Your task to perform on an android device: turn off picture-in-picture Image 0: 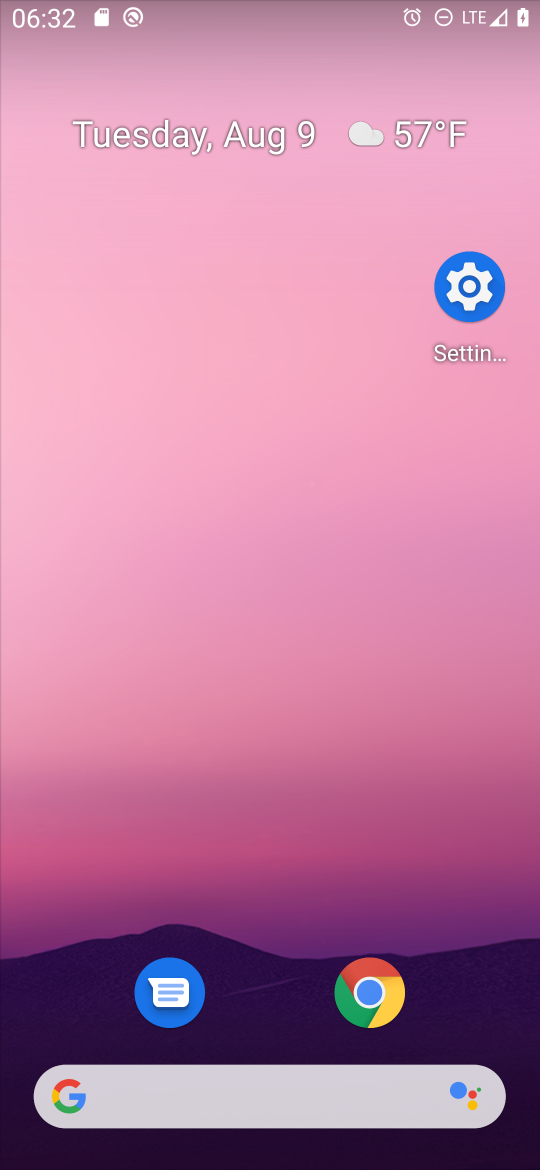
Step 0: drag from (311, 1064) to (236, 111)
Your task to perform on an android device: turn off picture-in-picture Image 1: 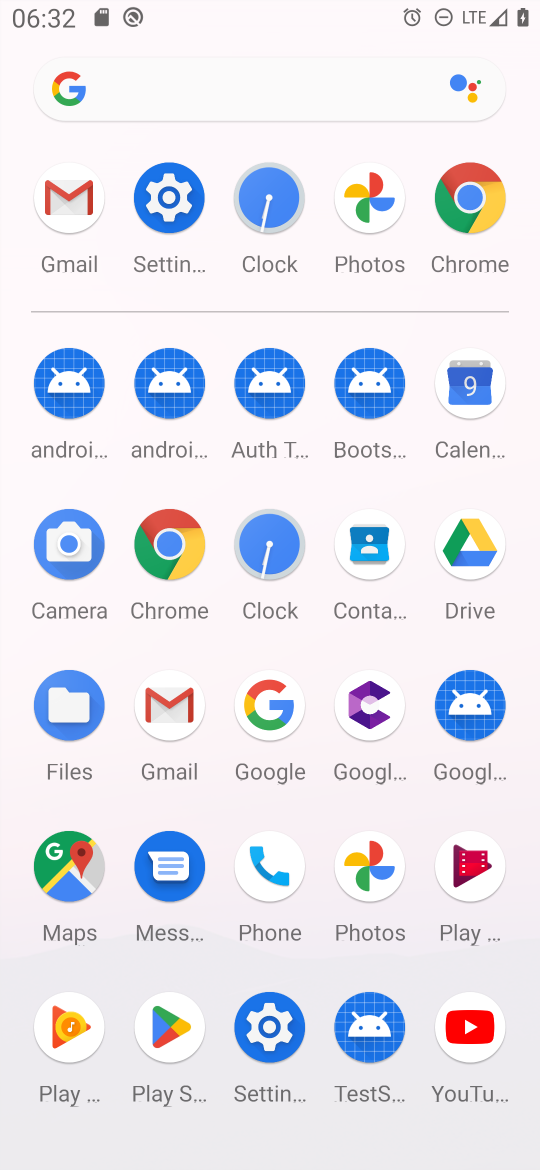
Step 1: click (166, 283)
Your task to perform on an android device: turn off picture-in-picture Image 2: 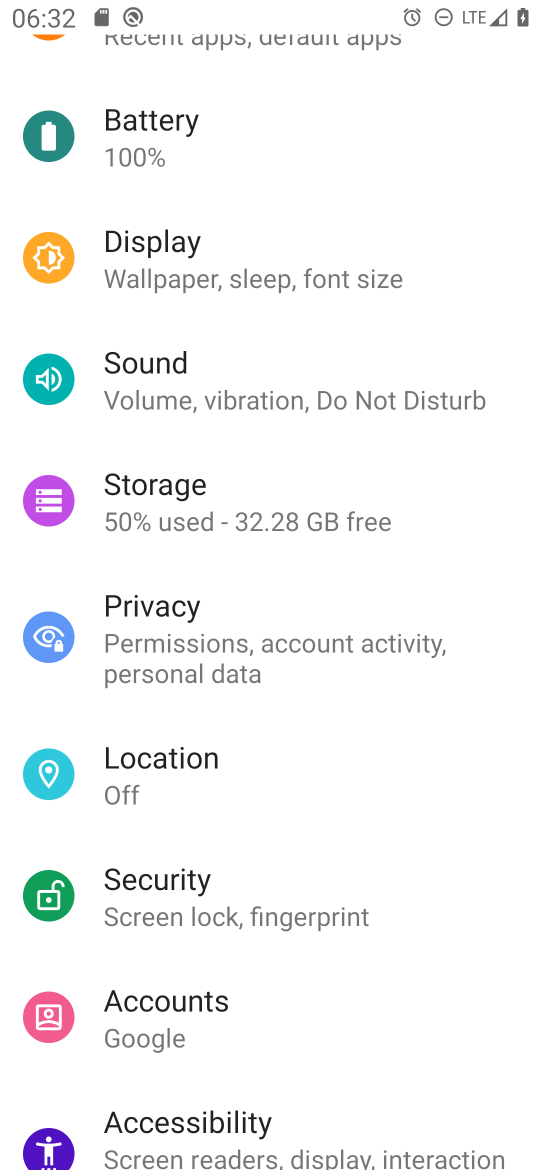
Step 2: drag from (353, 204) to (339, 633)
Your task to perform on an android device: turn off picture-in-picture Image 3: 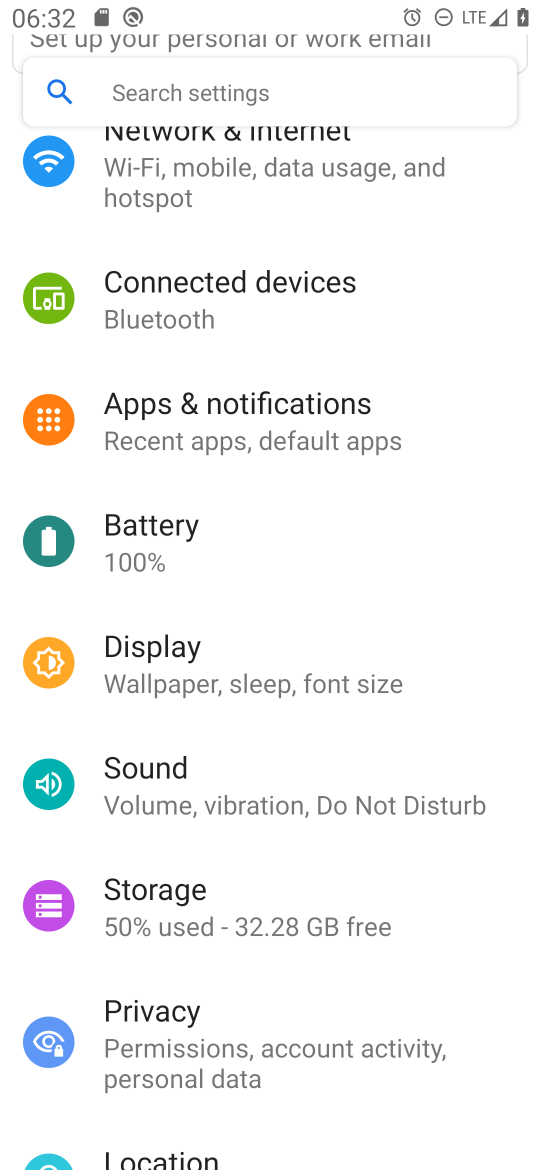
Step 3: click (285, 415)
Your task to perform on an android device: turn off picture-in-picture Image 4: 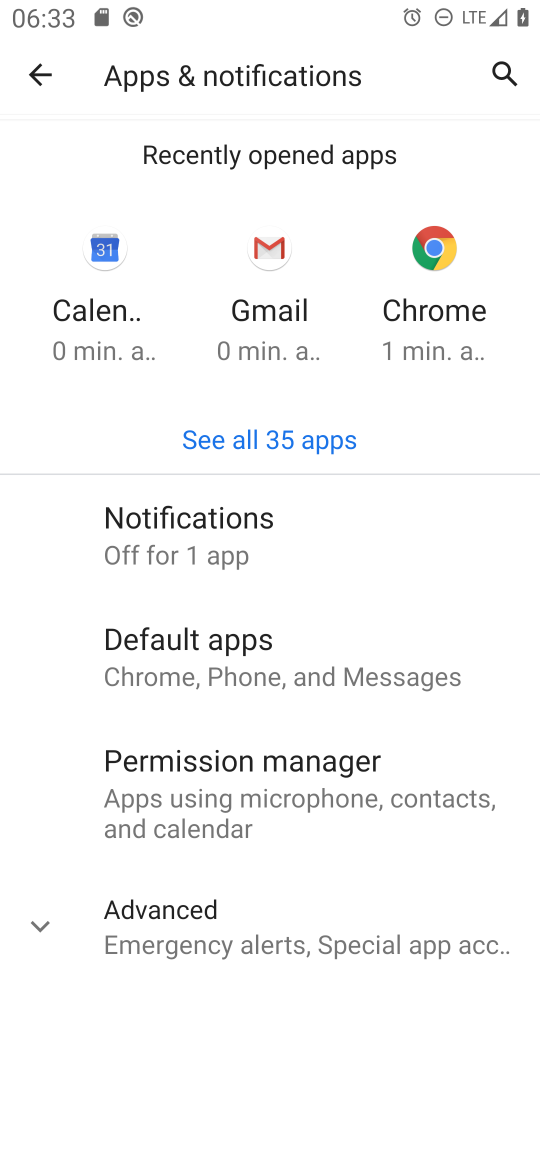
Step 4: click (272, 948)
Your task to perform on an android device: turn off picture-in-picture Image 5: 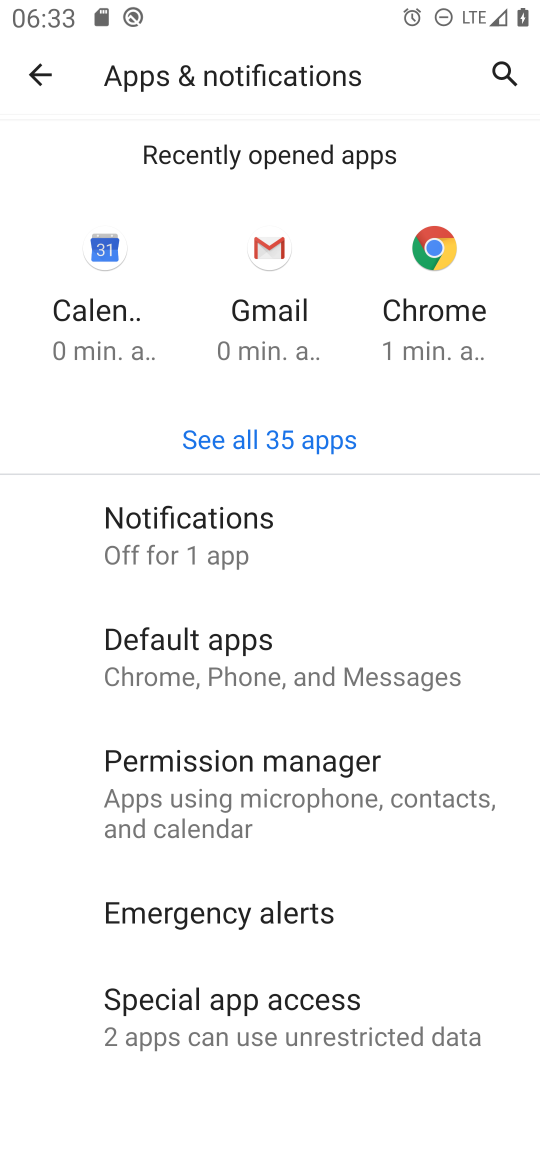
Step 5: click (283, 1010)
Your task to perform on an android device: turn off picture-in-picture Image 6: 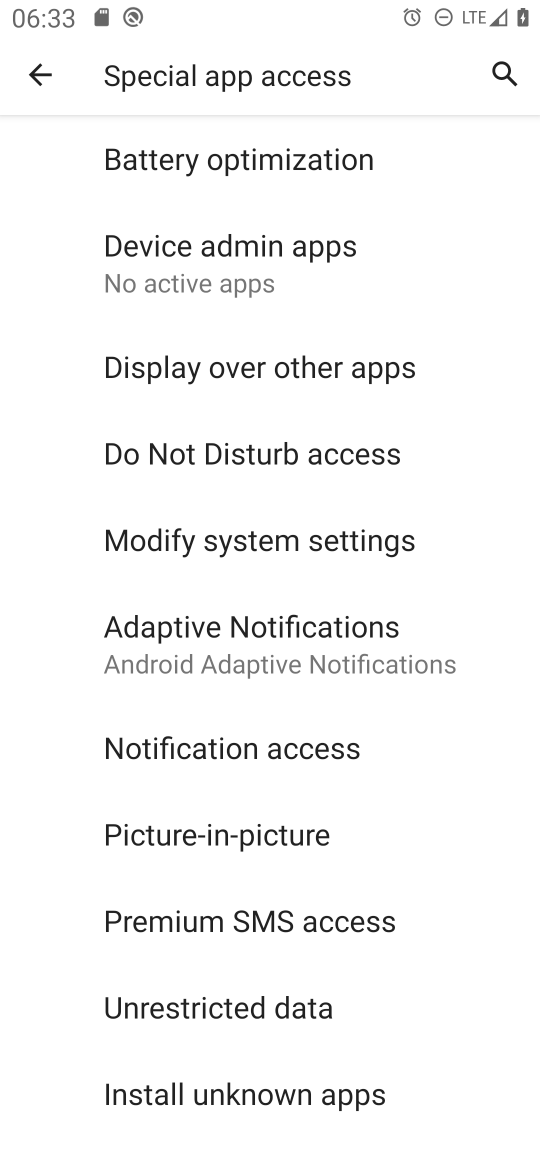
Step 6: click (242, 842)
Your task to perform on an android device: turn off picture-in-picture Image 7: 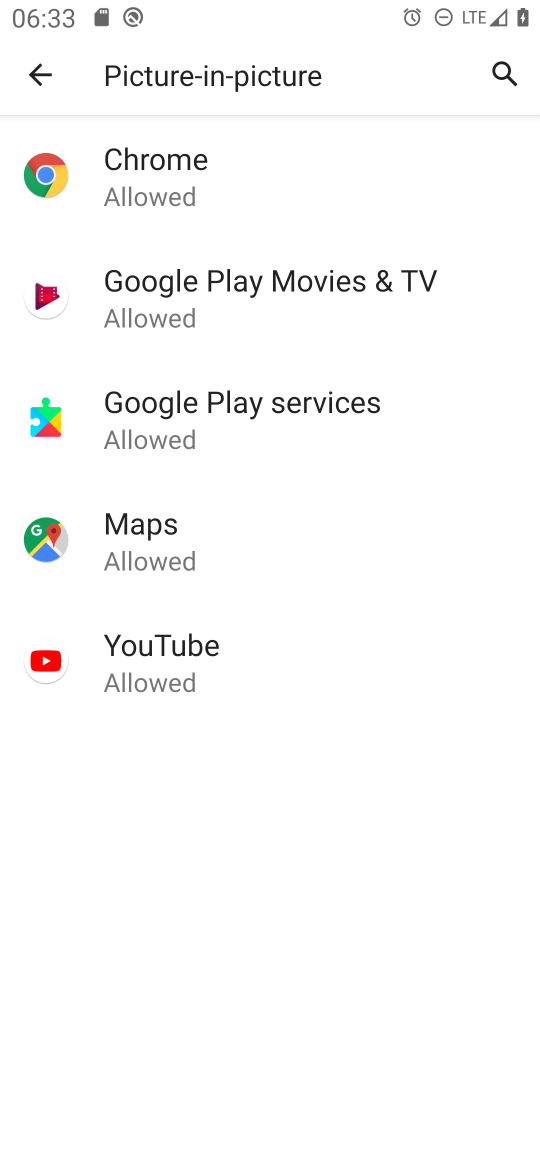
Step 7: click (193, 181)
Your task to perform on an android device: turn off picture-in-picture Image 8: 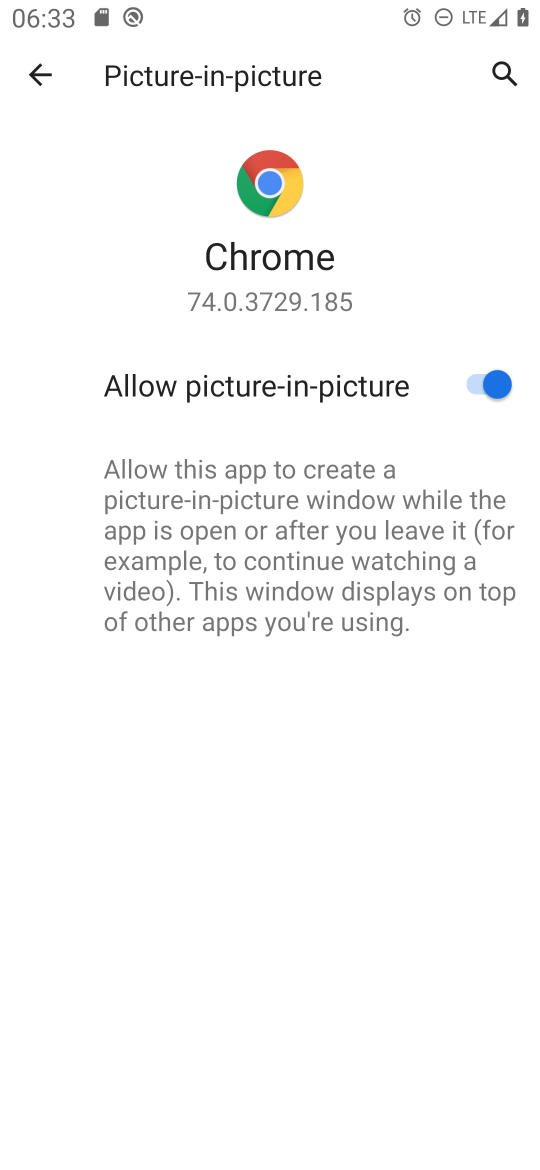
Step 8: click (485, 393)
Your task to perform on an android device: turn off picture-in-picture Image 9: 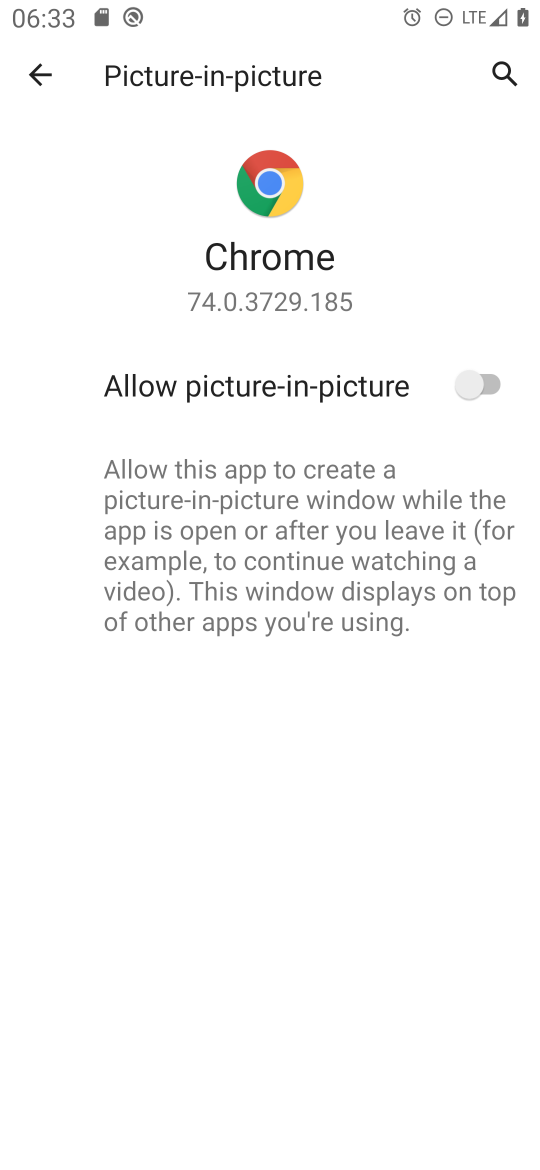
Step 9: press back button
Your task to perform on an android device: turn off picture-in-picture Image 10: 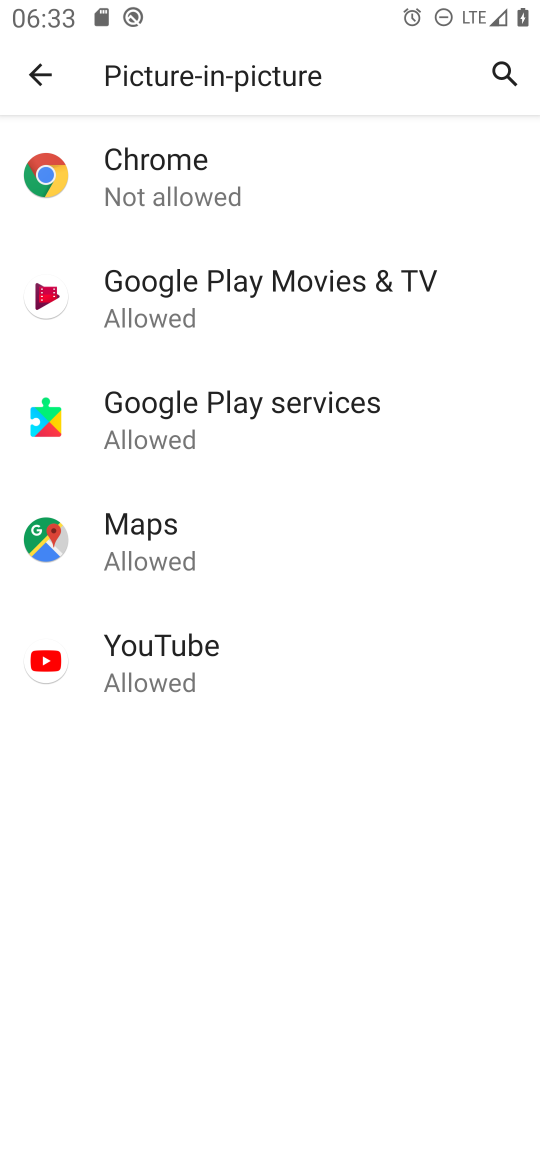
Step 10: click (384, 291)
Your task to perform on an android device: turn off picture-in-picture Image 11: 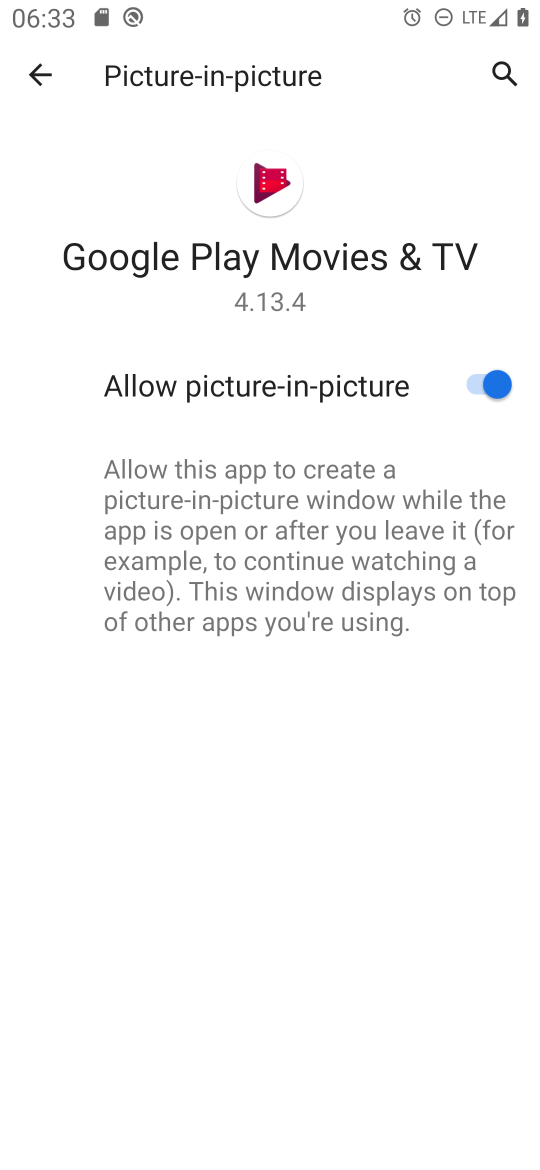
Step 11: click (477, 380)
Your task to perform on an android device: turn off picture-in-picture Image 12: 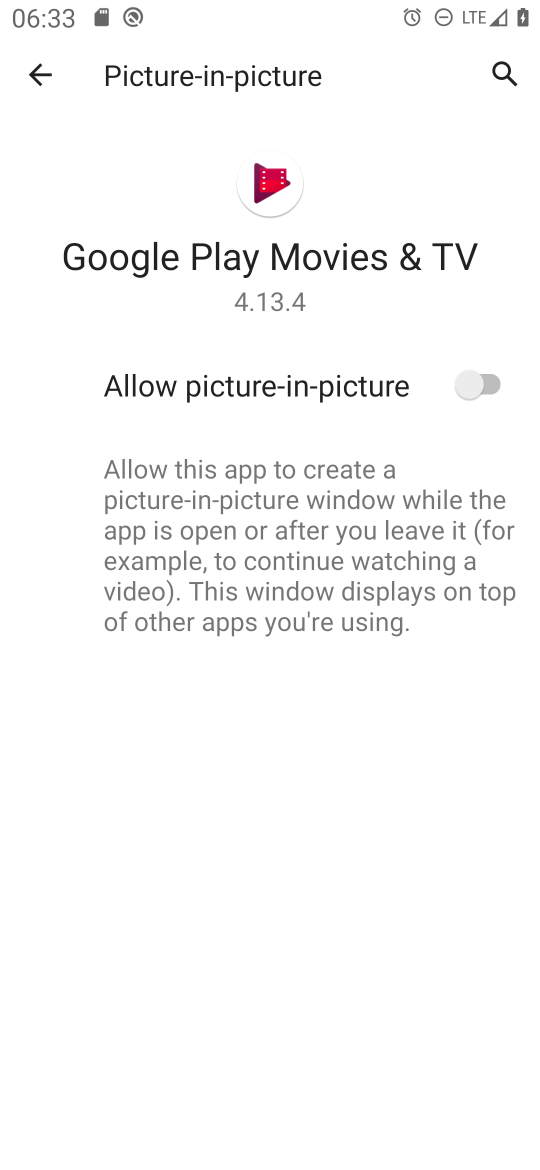
Step 12: press back button
Your task to perform on an android device: turn off picture-in-picture Image 13: 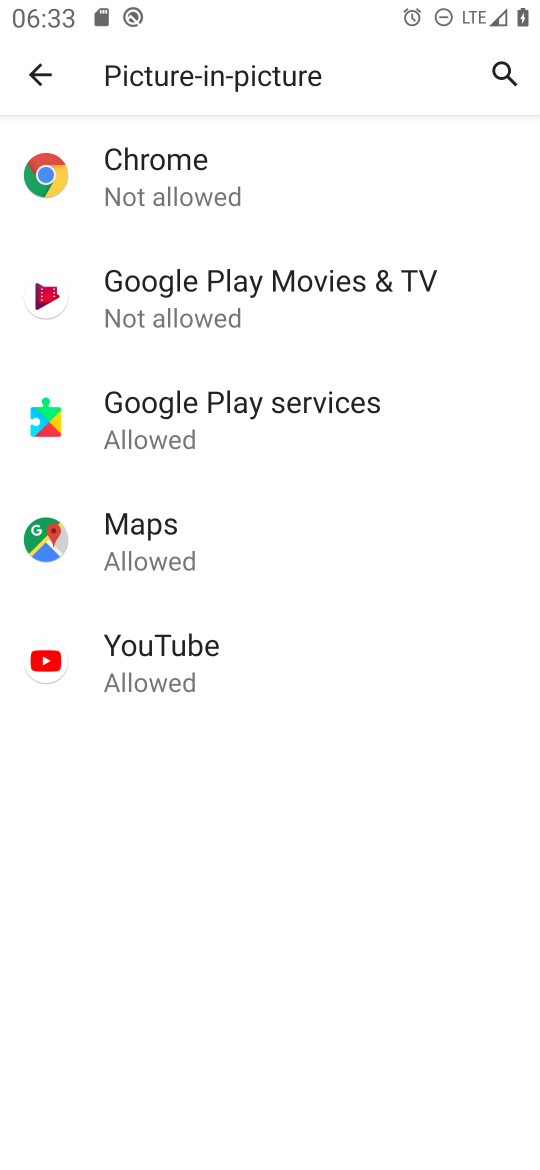
Step 13: click (188, 412)
Your task to perform on an android device: turn off picture-in-picture Image 14: 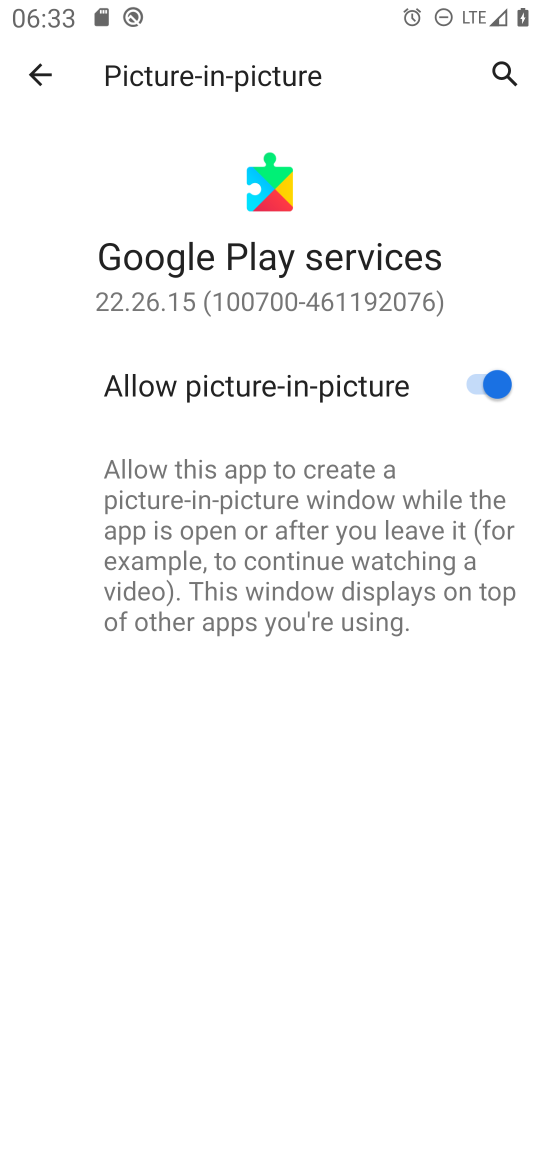
Step 14: click (475, 385)
Your task to perform on an android device: turn off picture-in-picture Image 15: 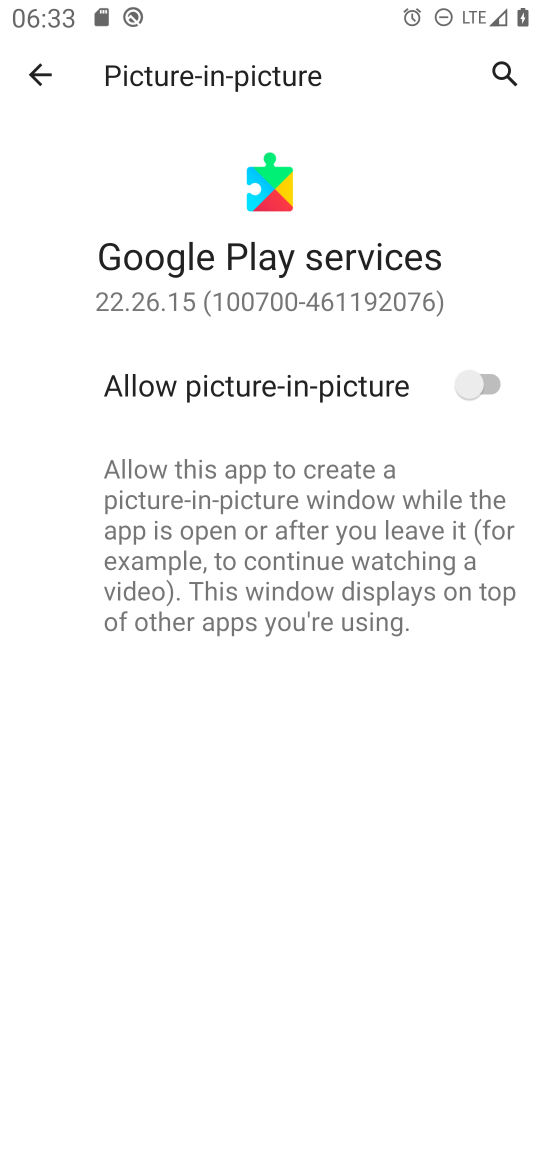
Step 15: press back button
Your task to perform on an android device: turn off picture-in-picture Image 16: 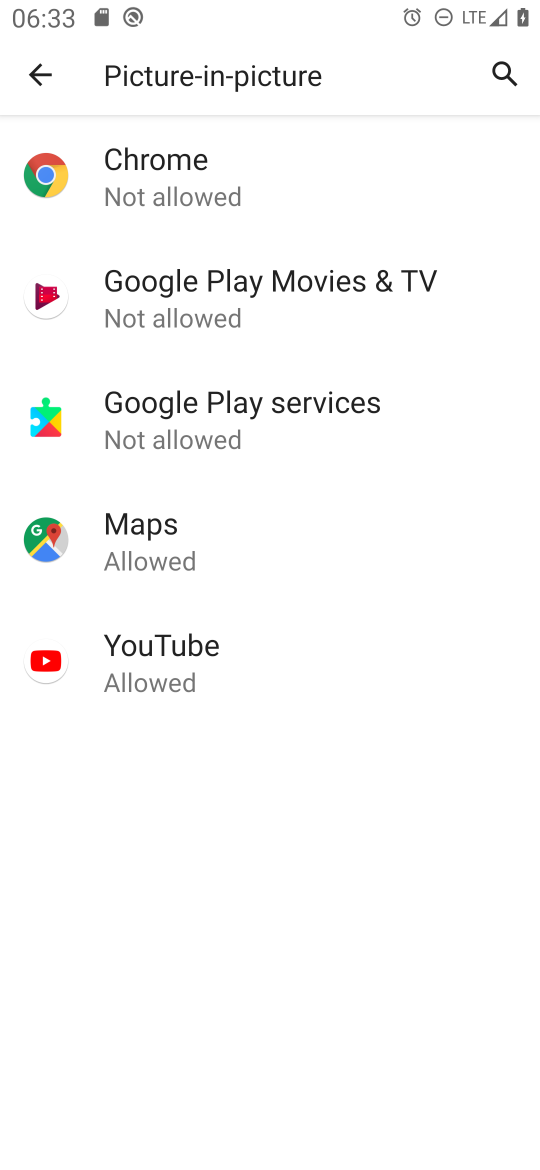
Step 16: click (197, 550)
Your task to perform on an android device: turn off picture-in-picture Image 17: 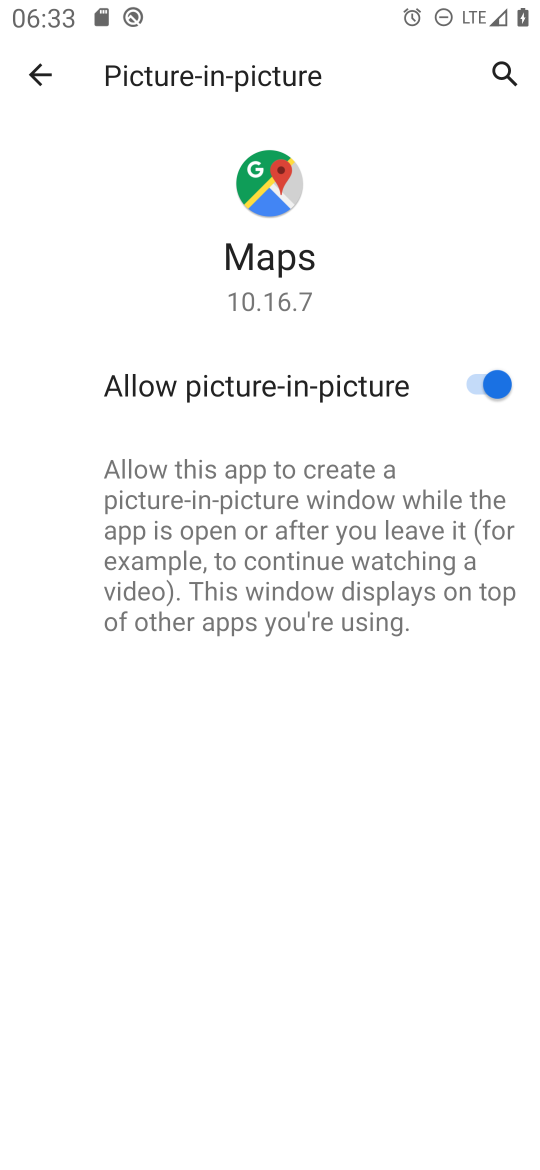
Step 17: click (477, 379)
Your task to perform on an android device: turn off picture-in-picture Image 18: 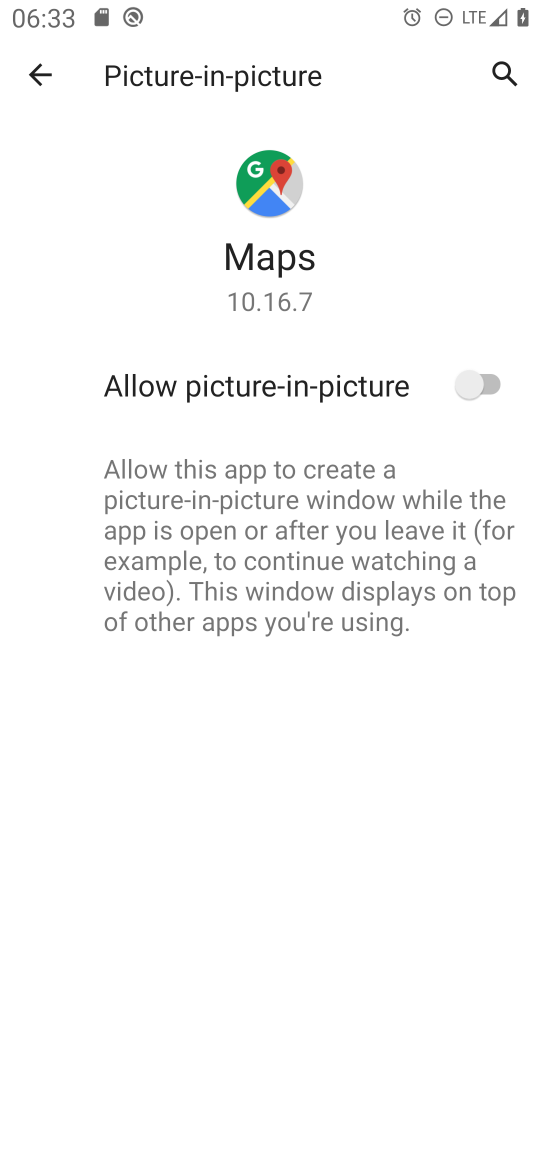
Step 18: press back button
Your task to perform on an android device: turn off picture-in-picture Image 19: 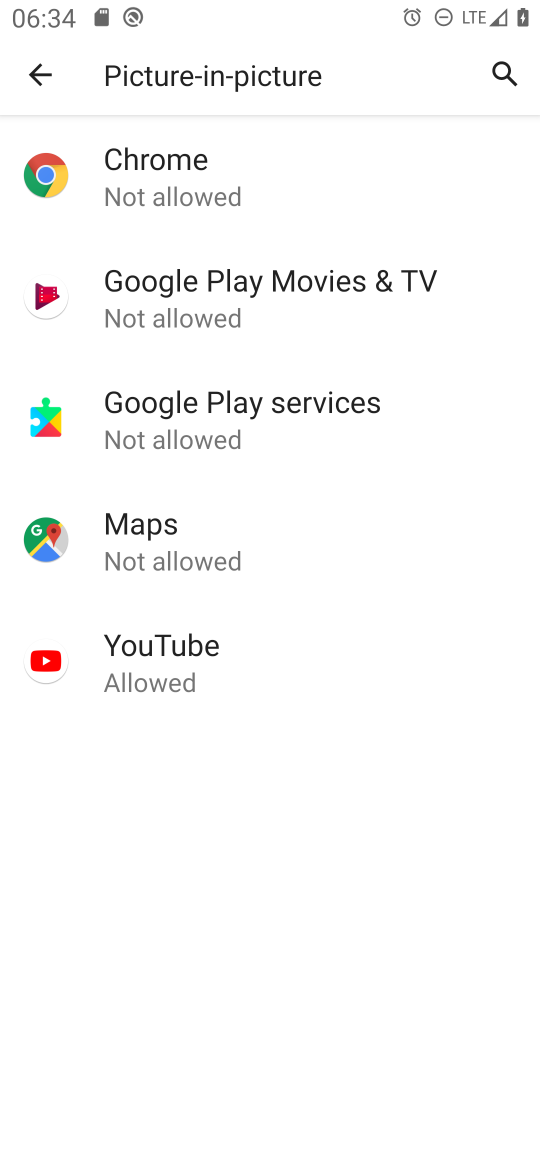
Step 19: click (159, 661)
Your task to perform on an android device: turn off picture-in-picture Image 20: 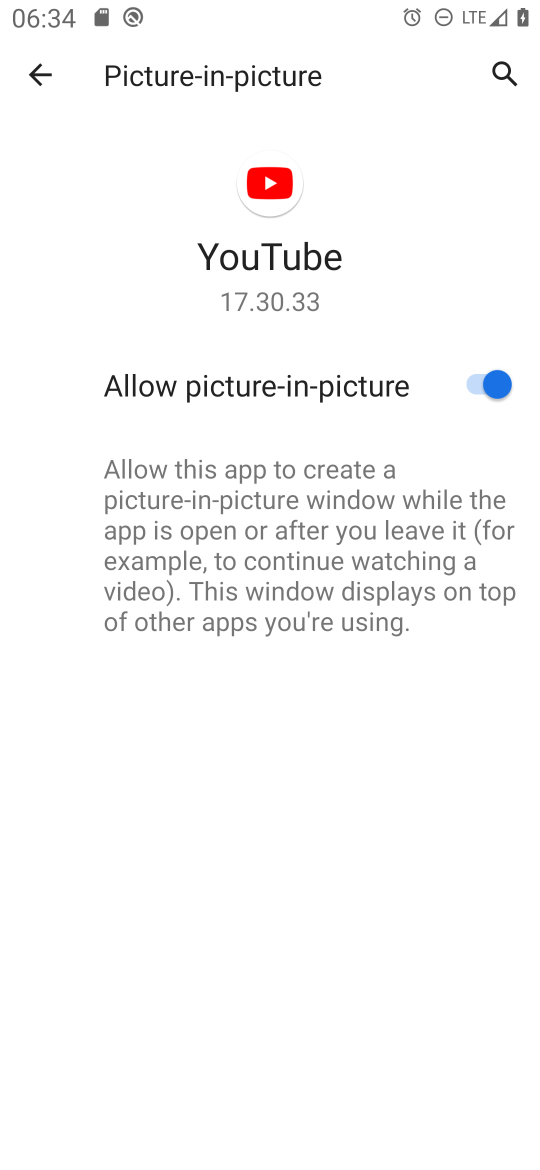
Step 20: click (483, 374)
Your task to perform on an android device: turn off picture-in-picture Image 21: 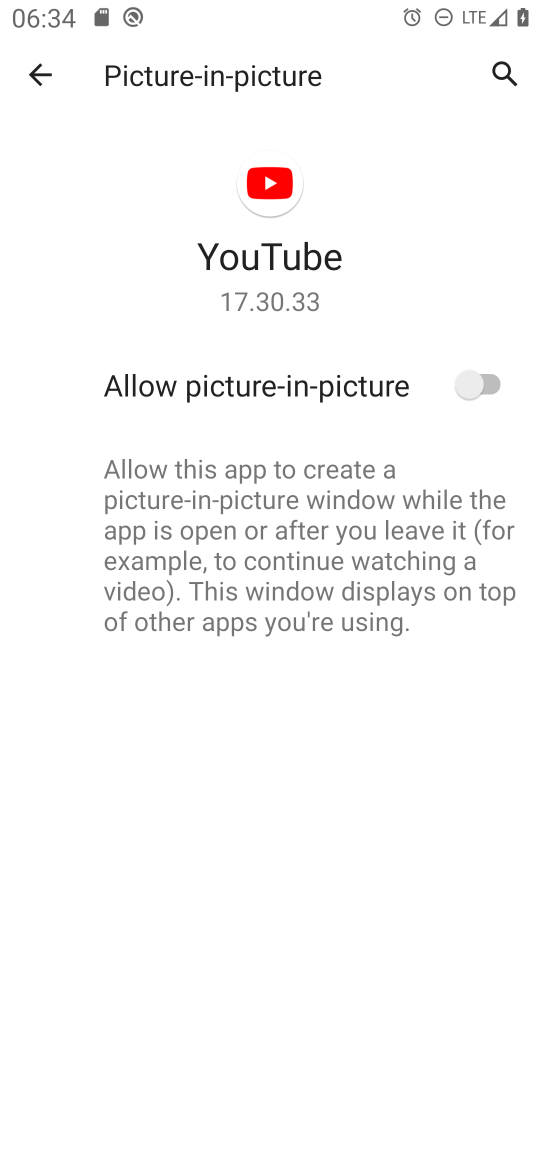
Step 21: task complete